Your task to perform on an android device: Search for Italian restaurants on Maps Image 0: 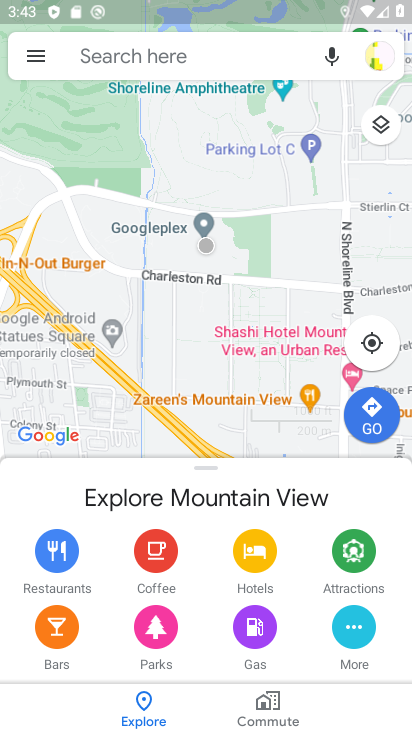
Step 0: click (222, 50)
Your task to perform on an android device: Search for Italian restaurants on Maps Image 1: 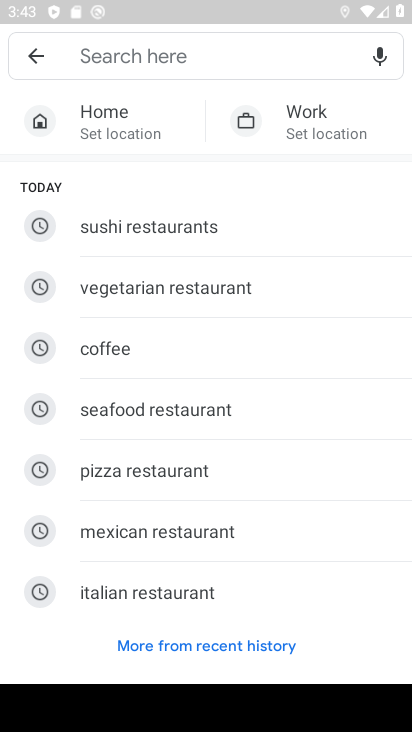
Step 1: click (114, 592)
Your task to perform on an android device: Search for Italian restaurants on Maps Image 2: 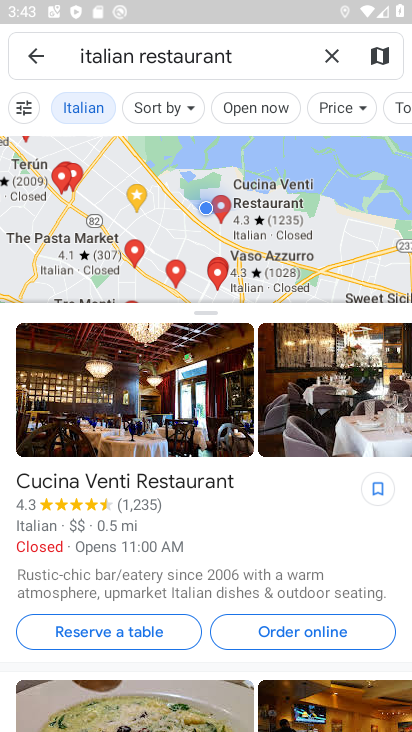
Step 2: task complete